Your task to perform on an android device: What's on my calendar tomorrow? Image 0: 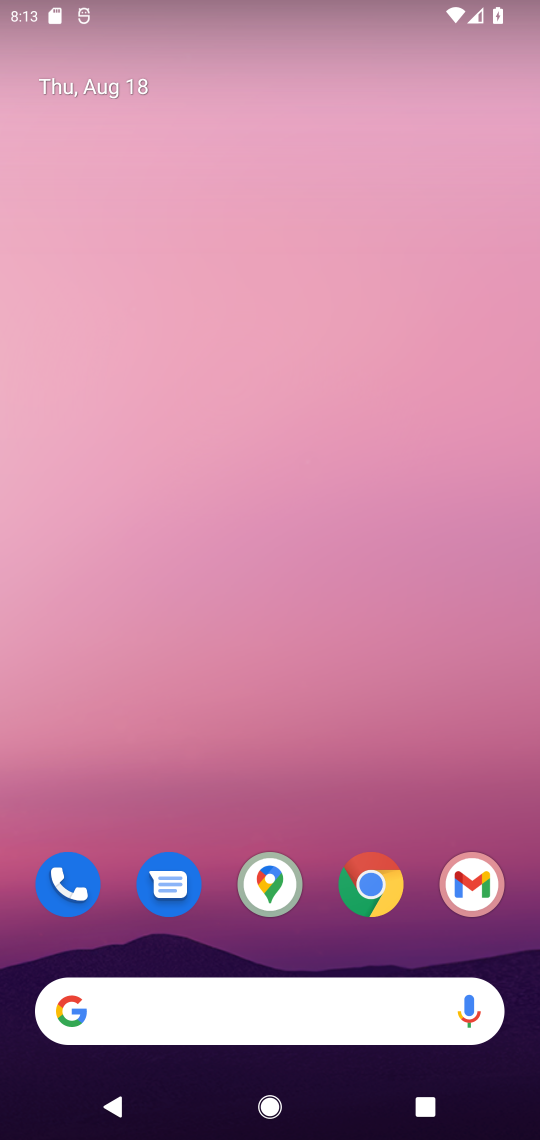
Step 0: click (107, 80)
Your task to perform on an android device: What's on my calendar tomorrow? Image 1: 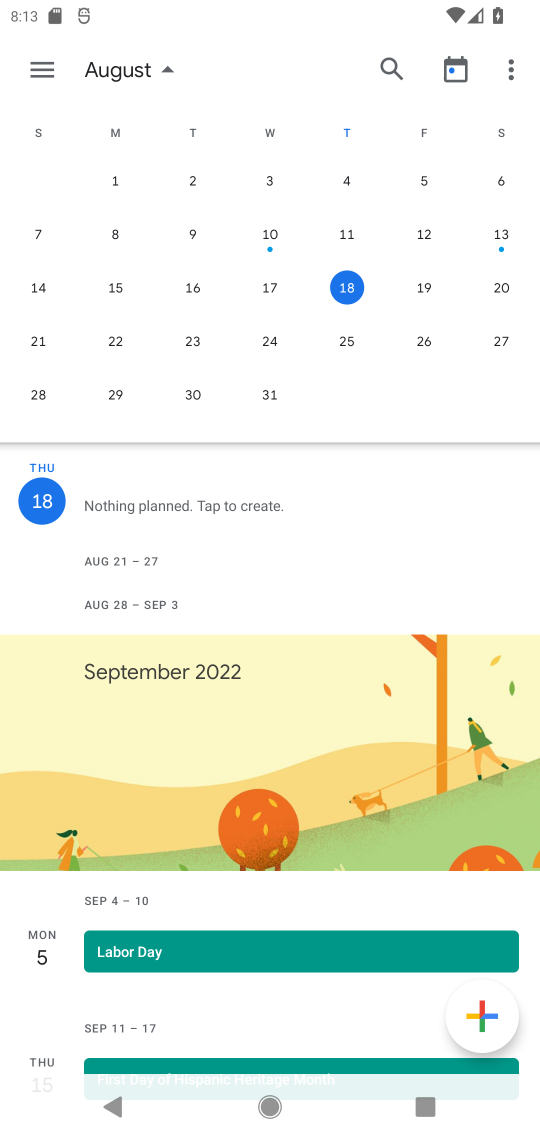
Step 1: click (432, 287)
Your task to perform on an android device: What's on my calendar tomorrow? Image 2: 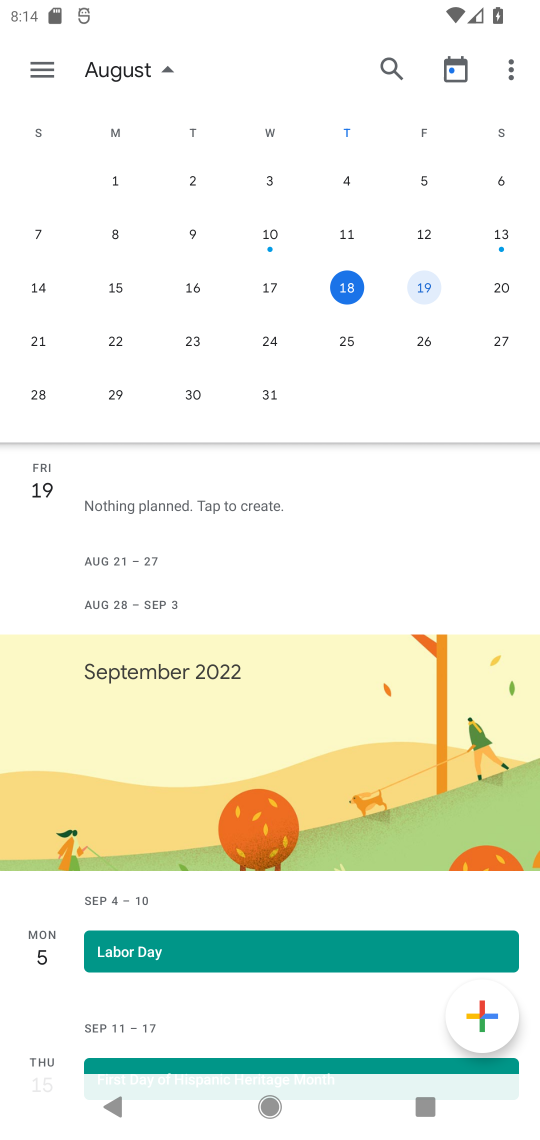
Step 2: task complete